Your task to perform on an android device: turn off sleep mode Image 0: 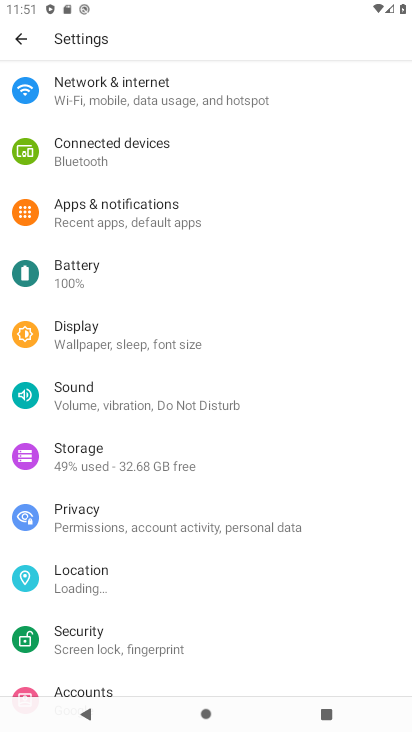
Step 0: click (91, 337)
Your task to perform on an android device: turn off sleep mode Image 1: 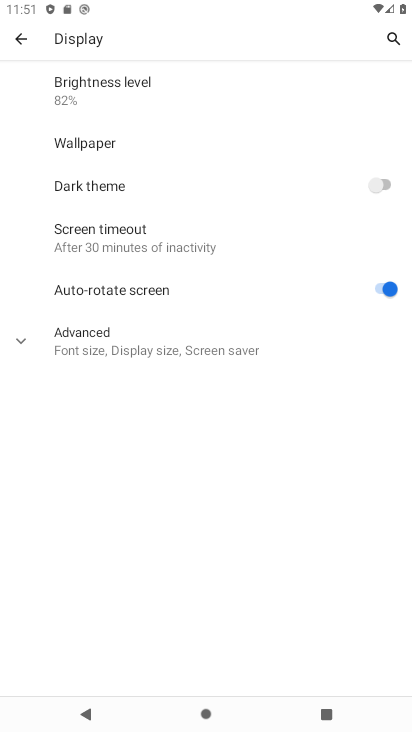
Step 1: click (123, 337)
Your task to perform on an android device: turn off sleep mode Image 2: 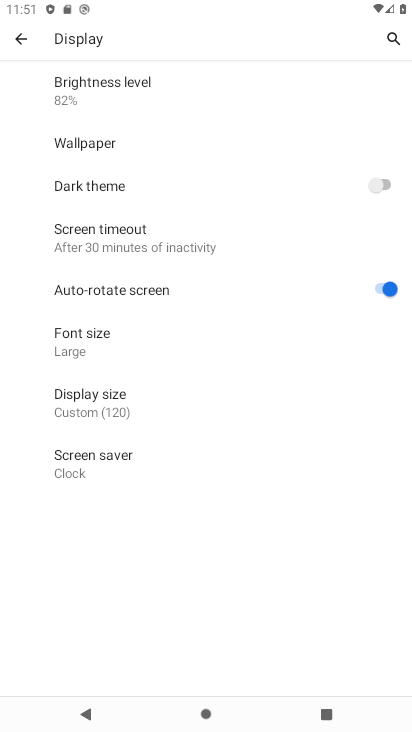
Step 2: task complete